Your task to perform on an android device: turn on wifi Image 0: 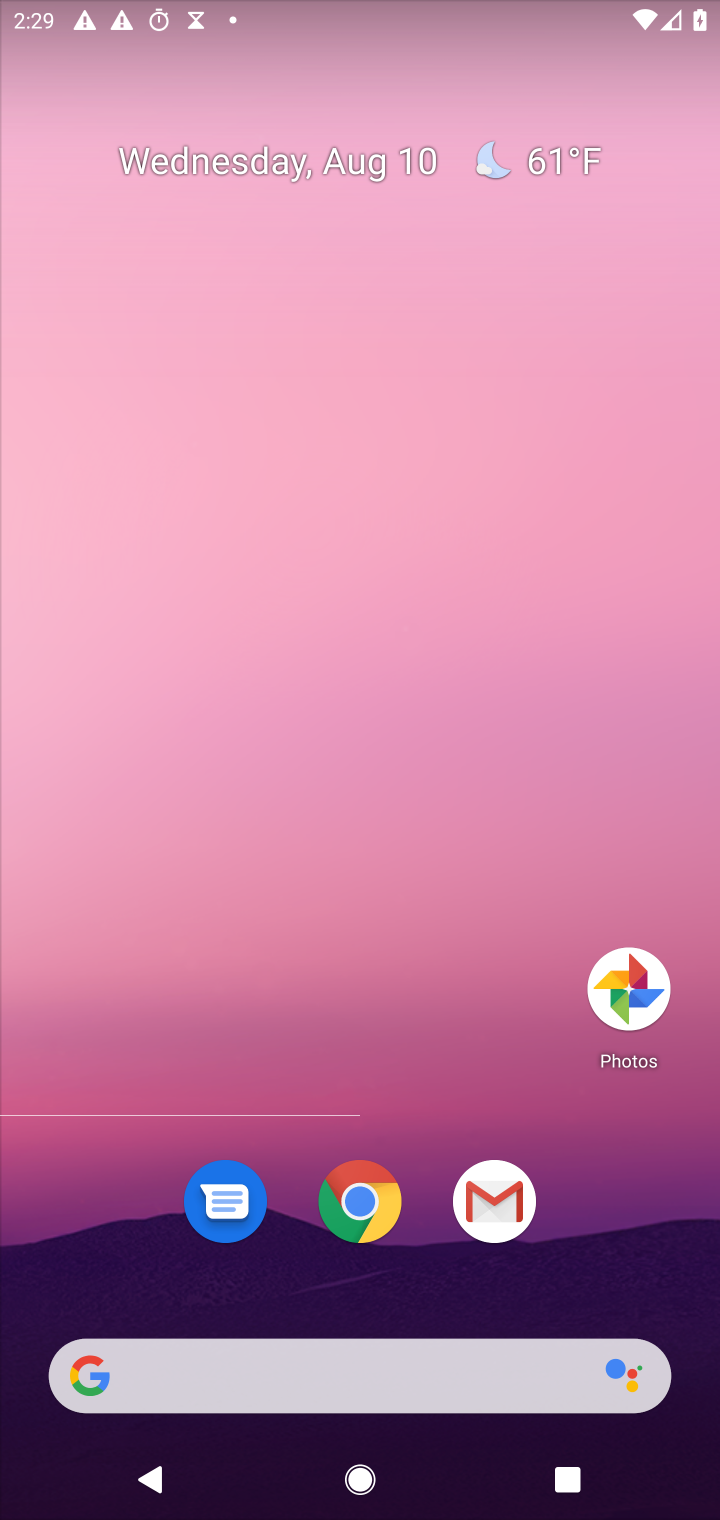
Step 0: press home button
Your task to perform on an android device: turn on wifi Image 1: 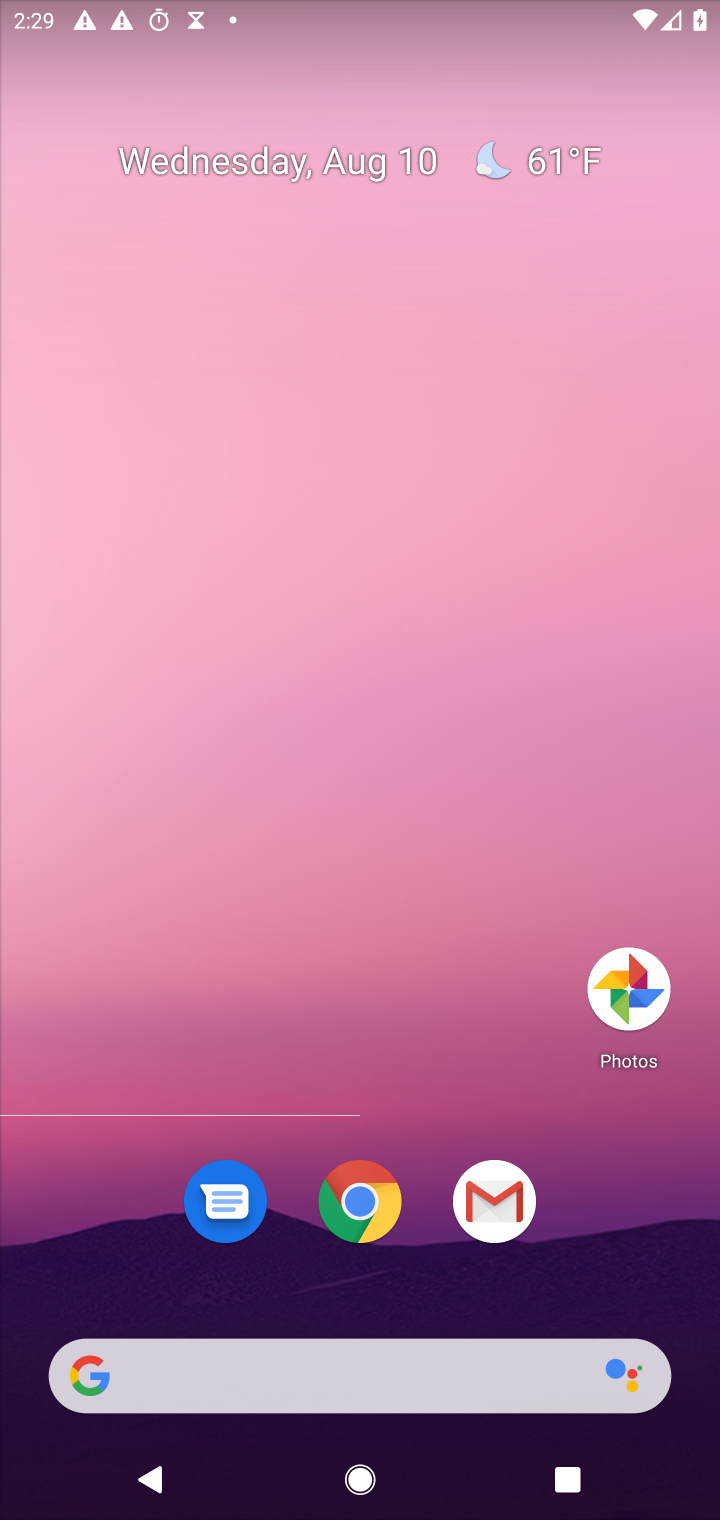
Step 1: task complete